Your task to perform on an android device: install app "Move to iOS" Image 0: 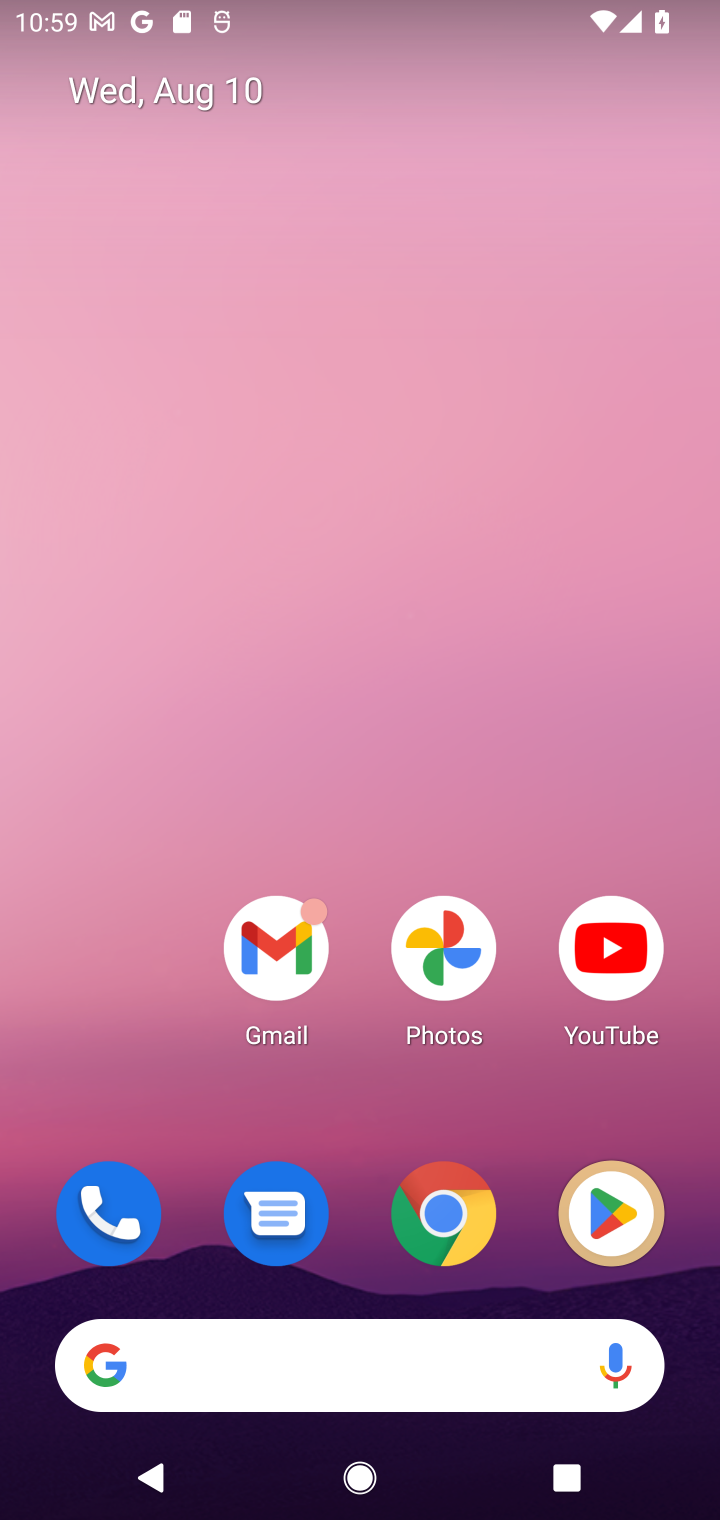
Step 0: drag from (308, 1348) to (622, 267)
Your task to perform on an android device: install app "Move to iOS" Image 1: 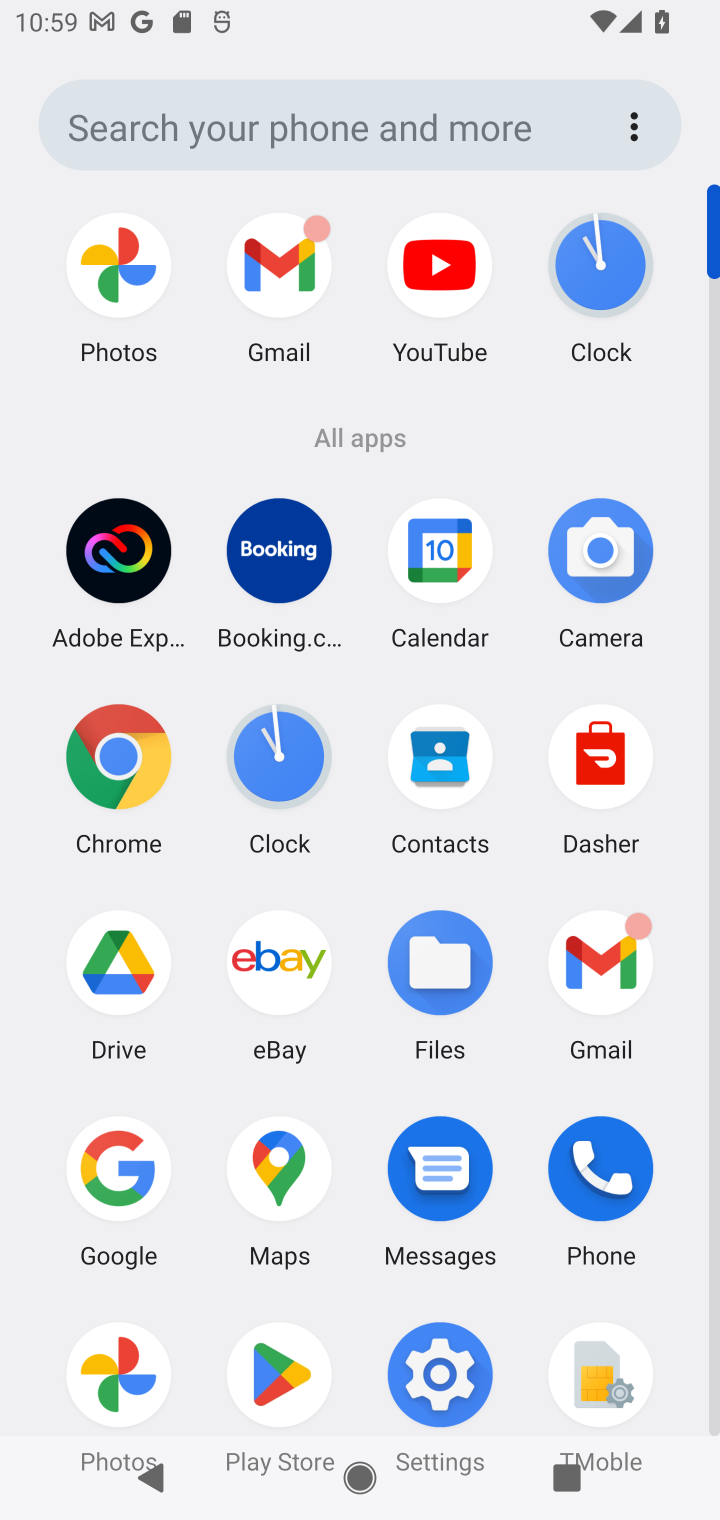
Step 1: click (272, 1369)
Your task to perform on an android device: install app "Move to iOS" Image 2: 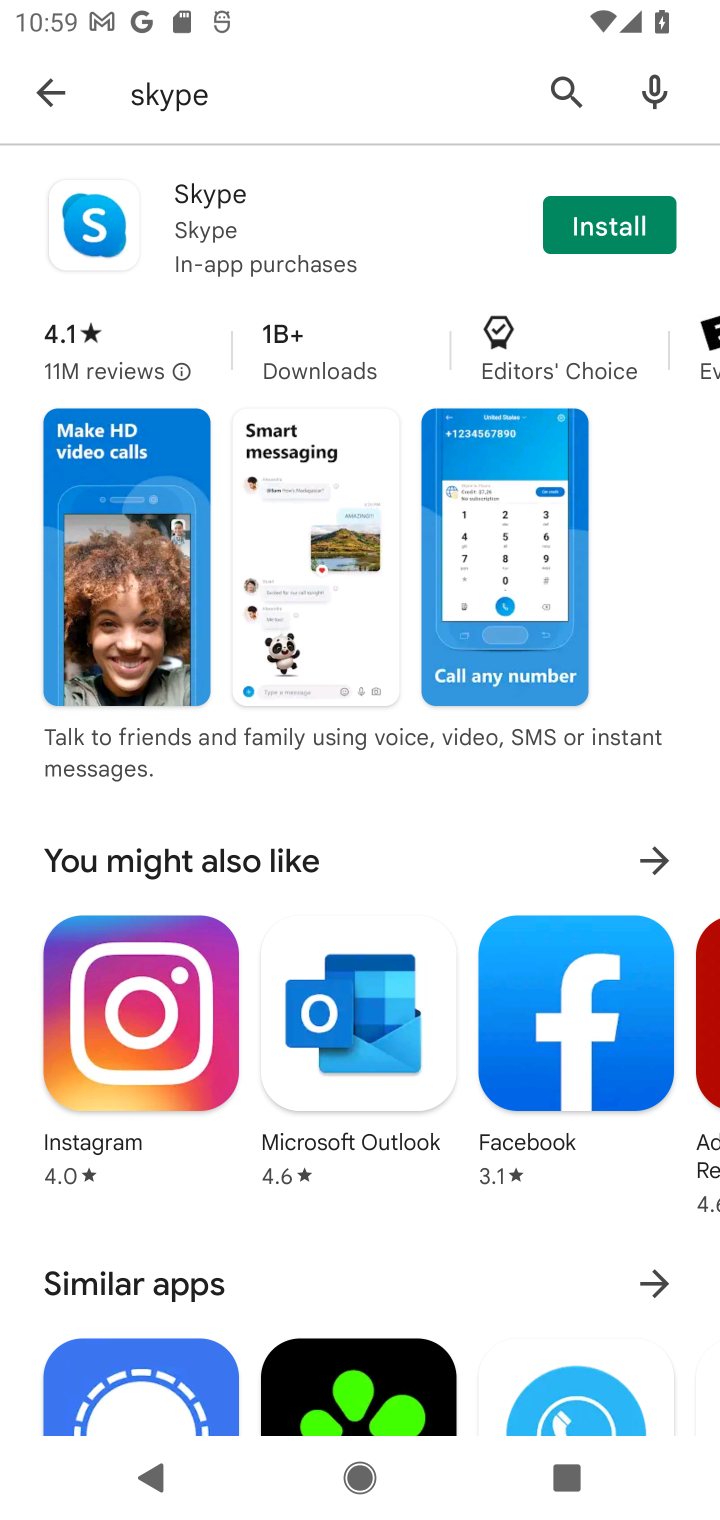
Step 2: press back button
Your task to perform on an android device: install app "Move to iOS" Image 3: 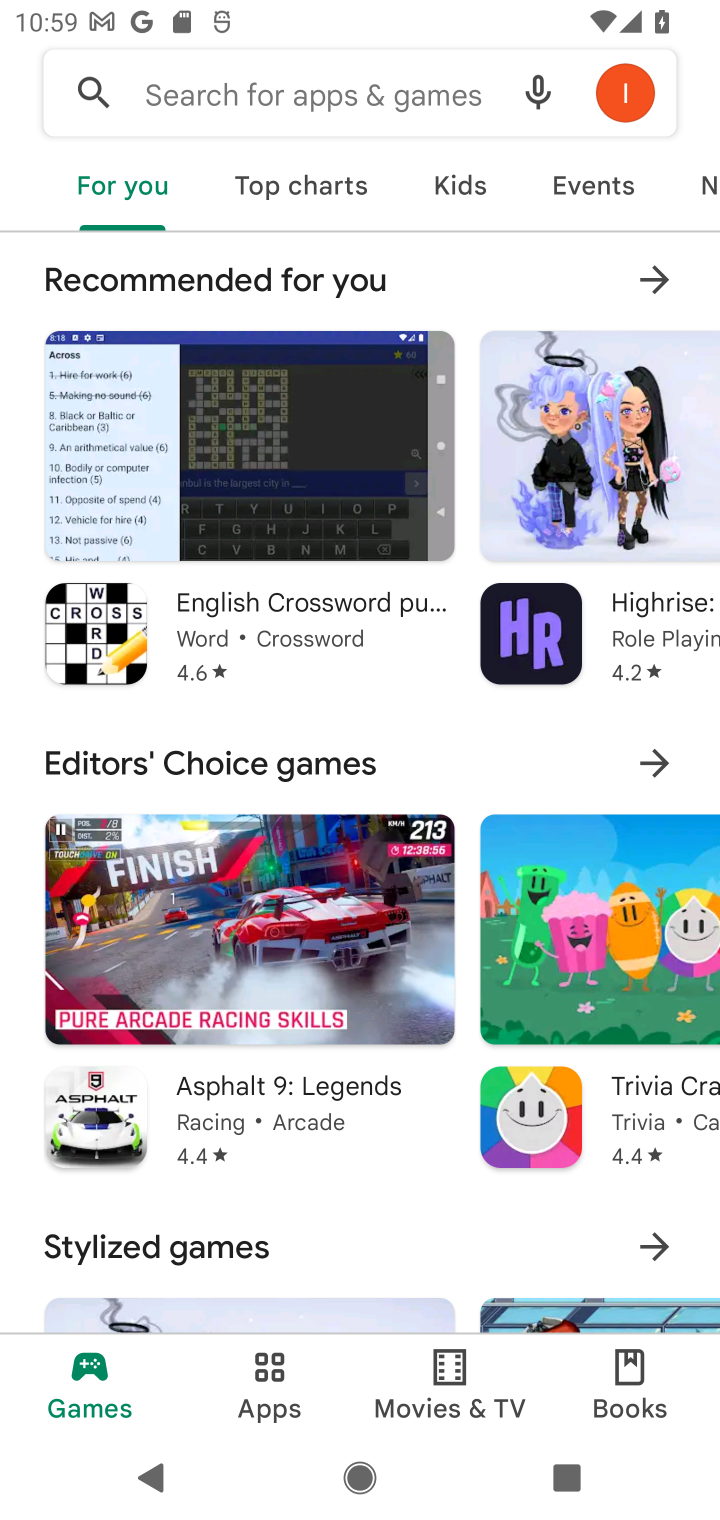
Step 3: click (417, 88)
Your task to perform on an android device: install app "Move to iOS" Image 4: 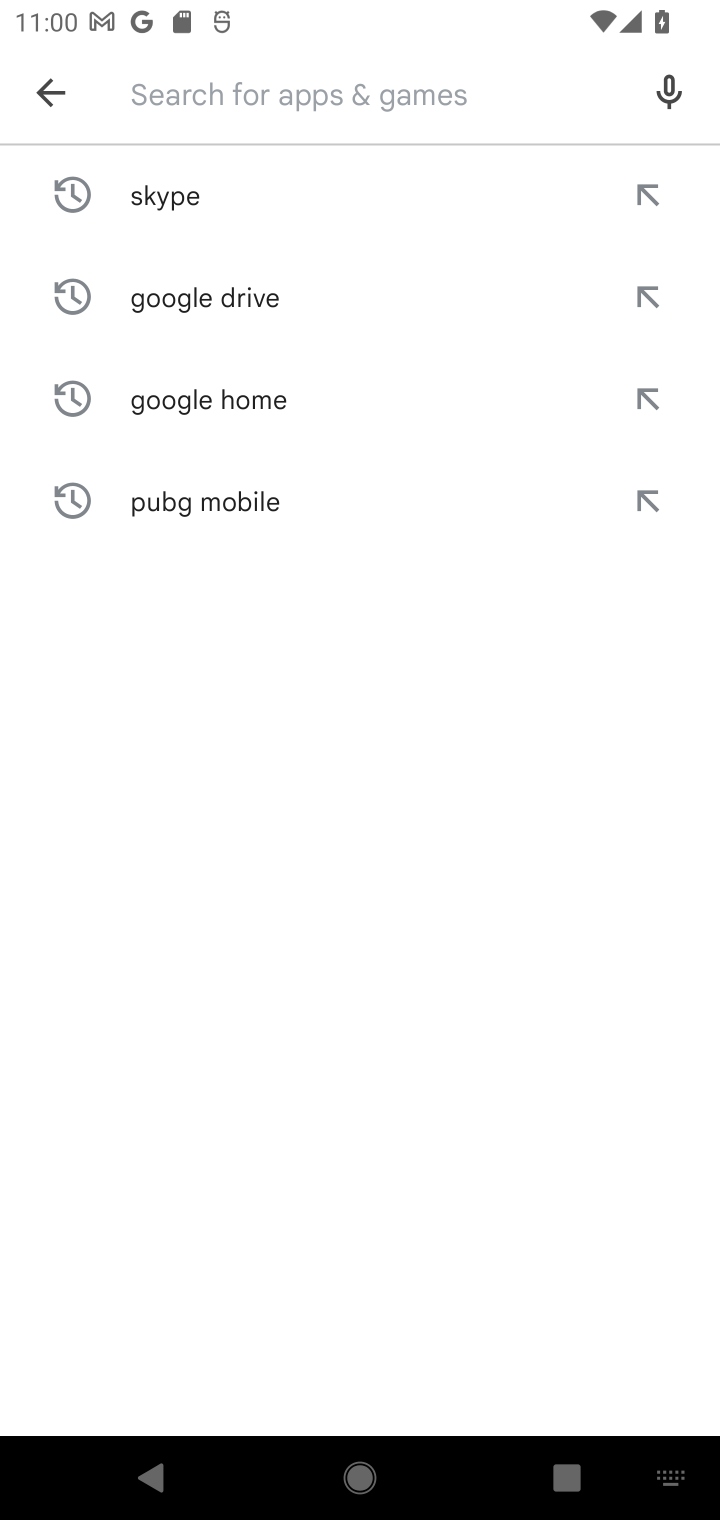
Step 4: type "Move to iOS"
Your task to perform on an android device: install app "Move to iOS" Image 5: 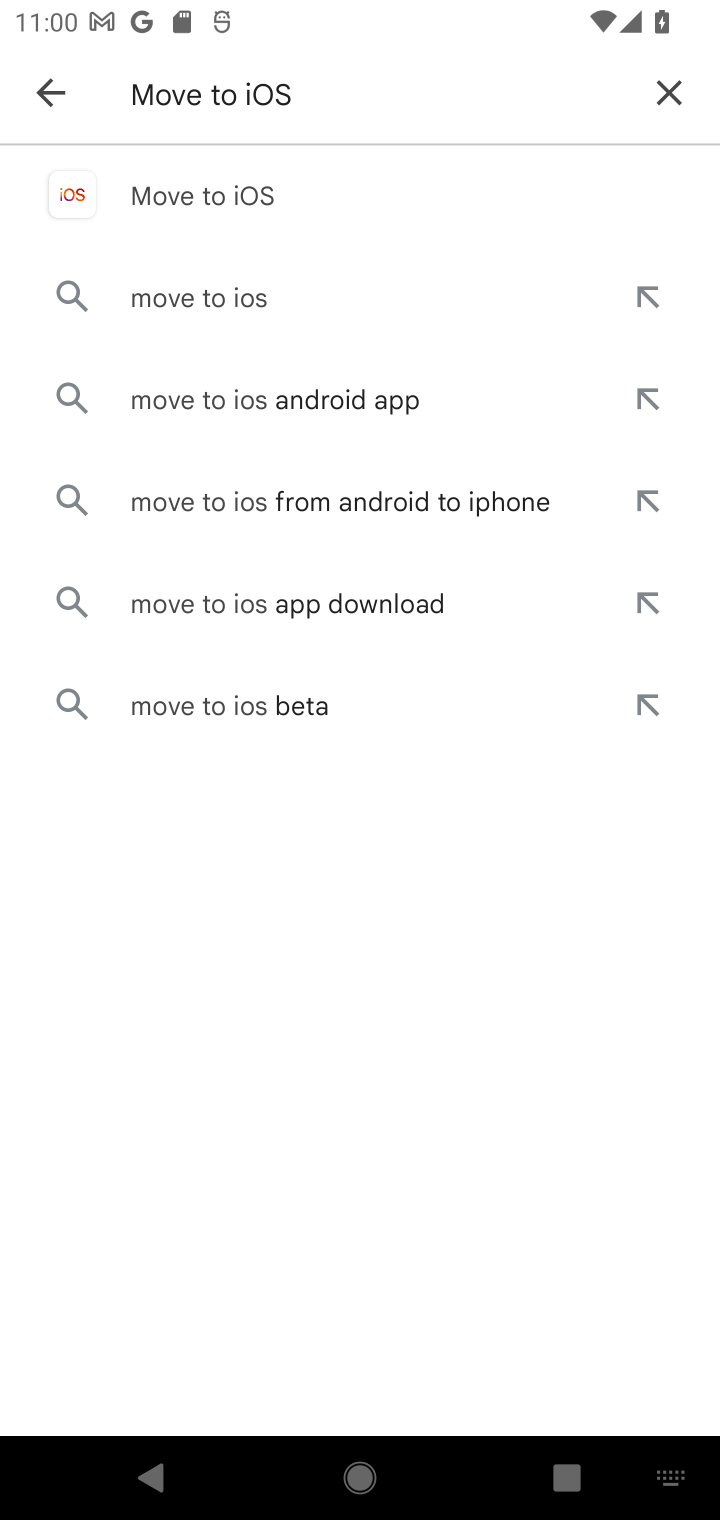
Step 5: click (215, 204)
Your task to perform on an android device: install app "Move to iOS" Image 6: 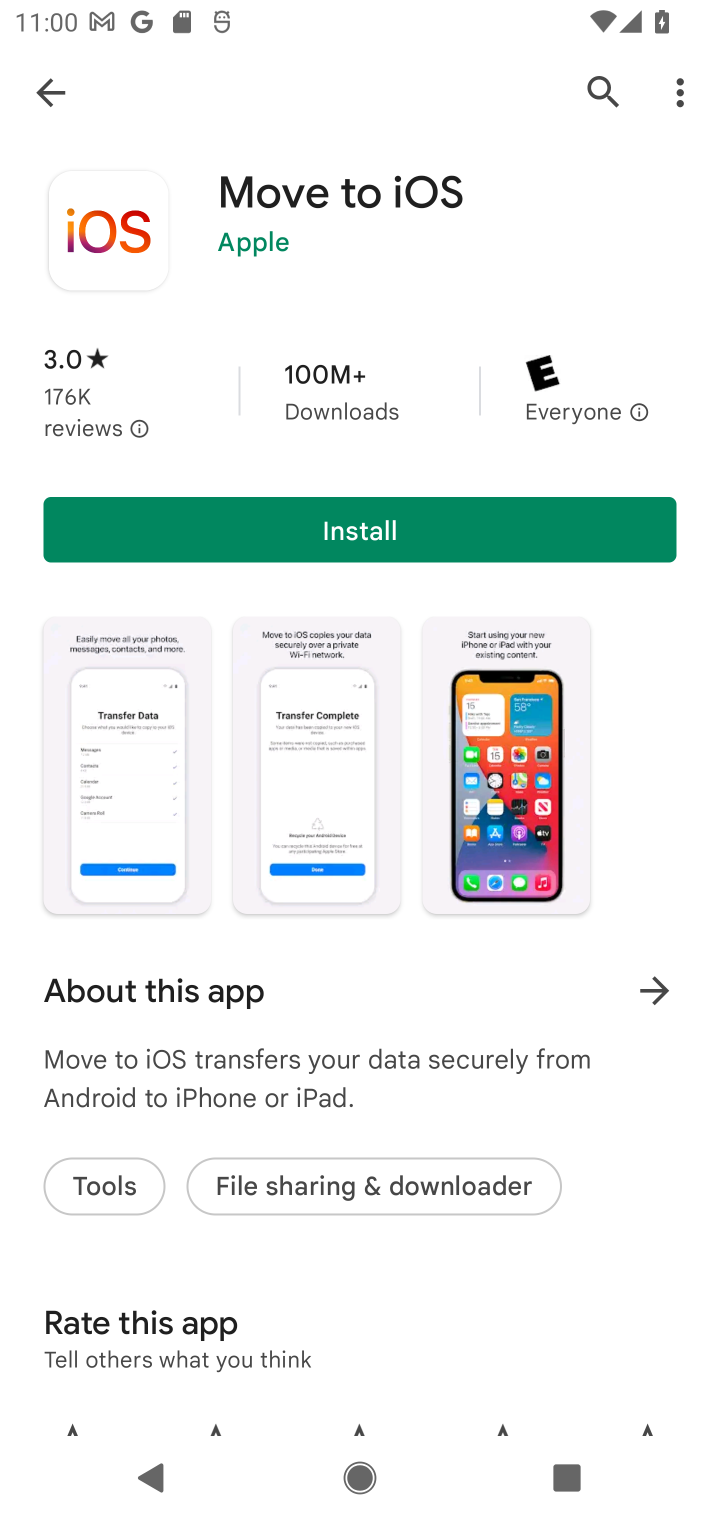
Step 6: click (375, 543)
Your task to perform on an android device: install app "Move to iOS" Image 7: 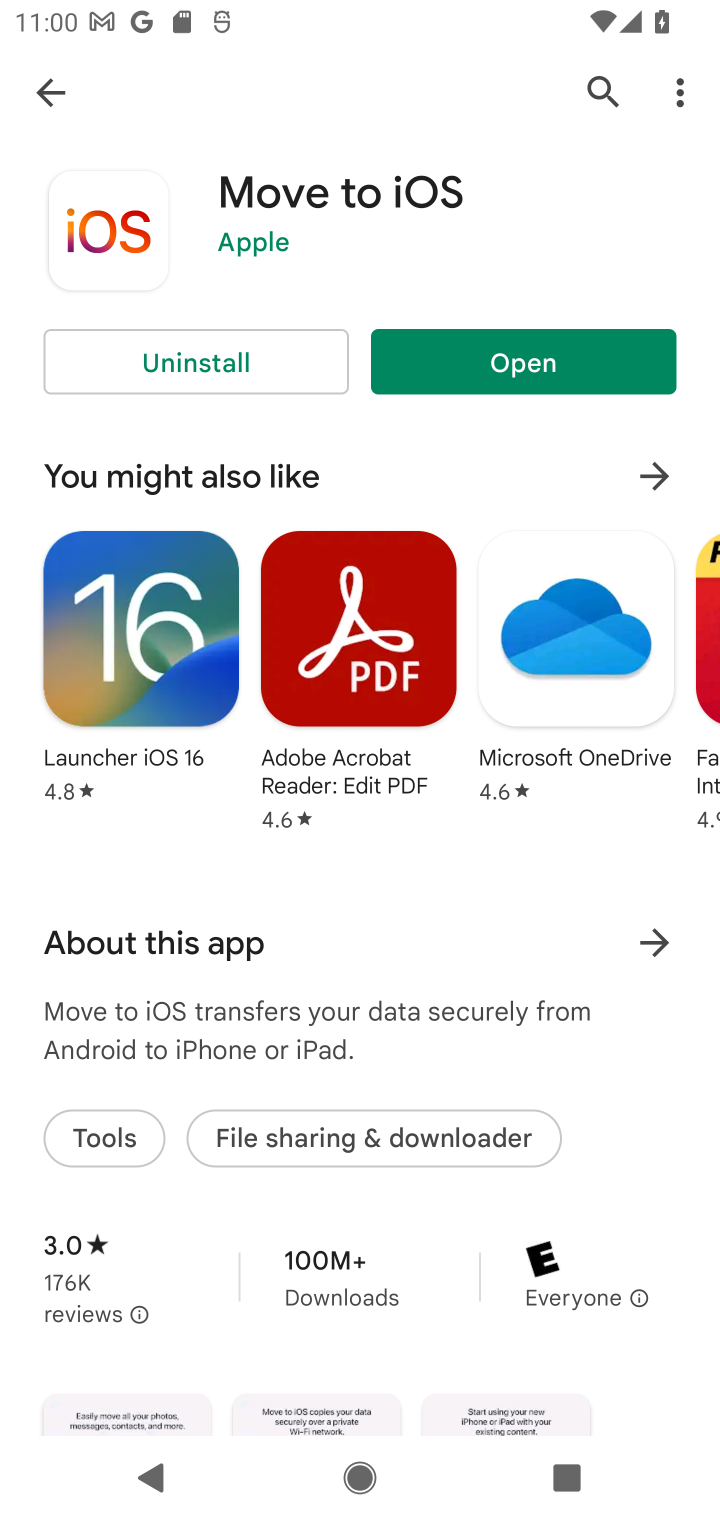
Step 7: task complete